Your task to perform on an android device: Open Google Chrome Image 0: 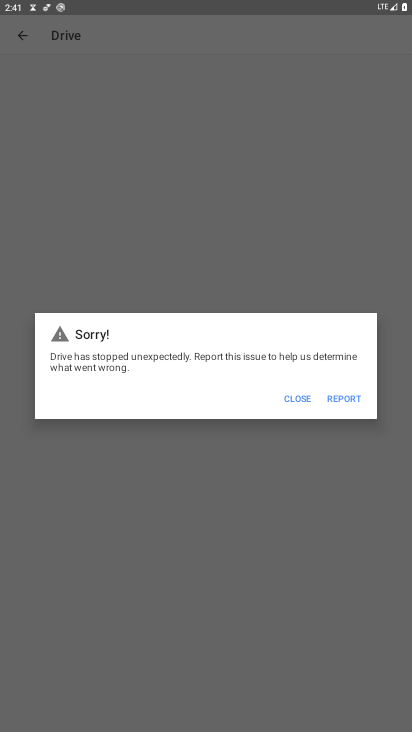
Step 0: press home button
Your task to perform on an android device: Open Google Chrome Image 1: 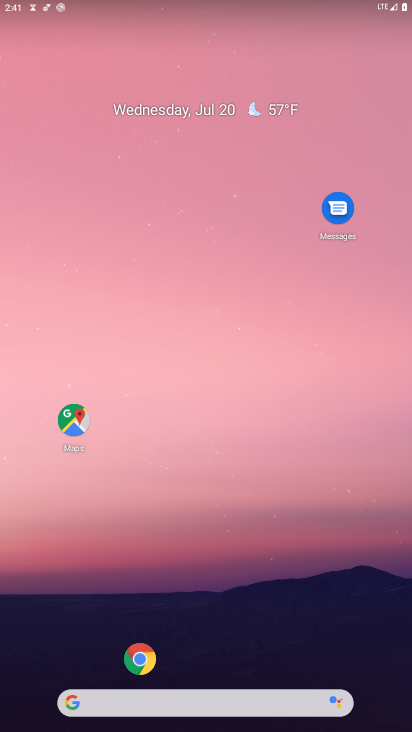
Step 1: click (140, 657)
Your task to perform on an android device: Open Google Chrome Image 2: 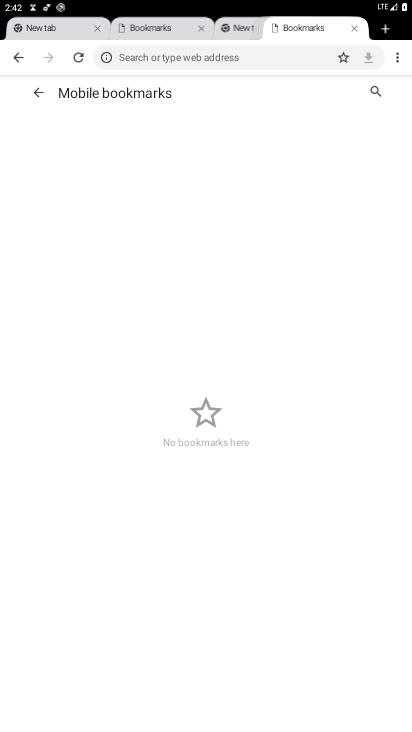
Step 2: click (399, 53)
Your task to perform on an android device: Open Google Chrome Image 3: 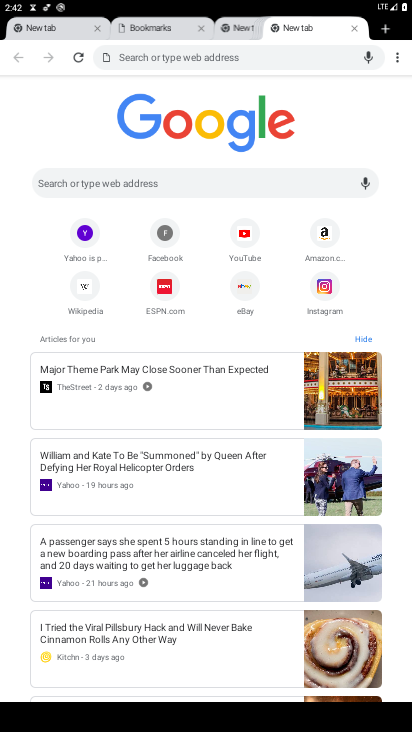
Step 3: task complete